Your task to perform on an android device: Open Chrome and go to settings Image 0: 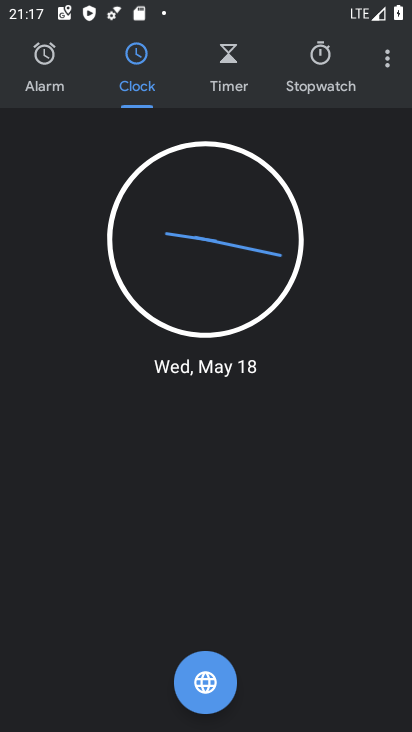
Step 0: press back button
Your task to perform on an android device: Open Chrome and go to settings Image 1: 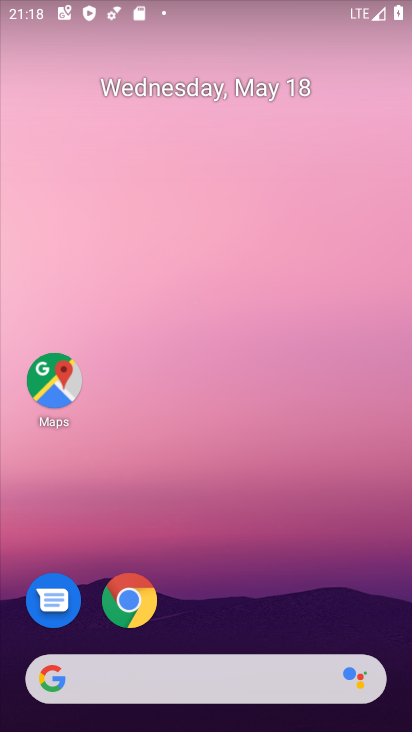
Step 1: click (102, 594)
Your task to perform on an android device: Open Chrome and go to settings Image 2: 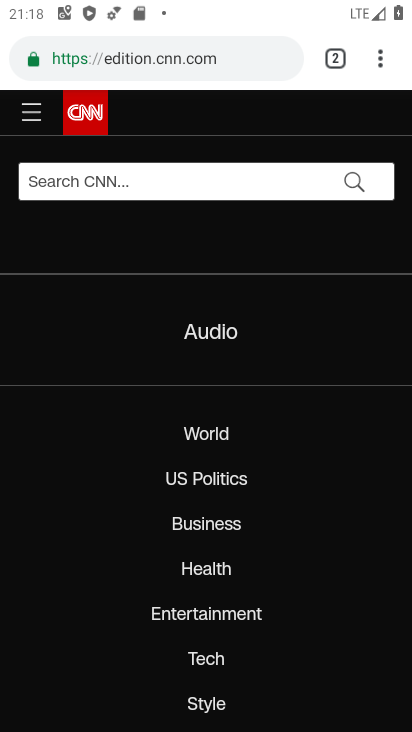
Step 2: task complete